Your task to perform on an android device: turn on airplane mode Image 0: 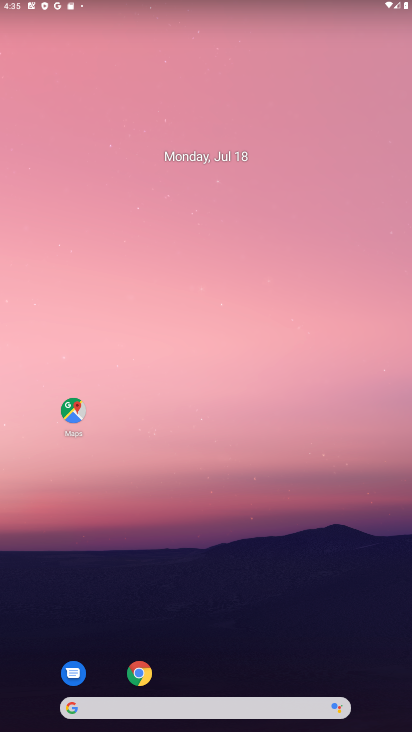
Step 0: drag from (364, 649) to (265, 172)
Your task to perform on an android device: turn on airplane mode Image 1: 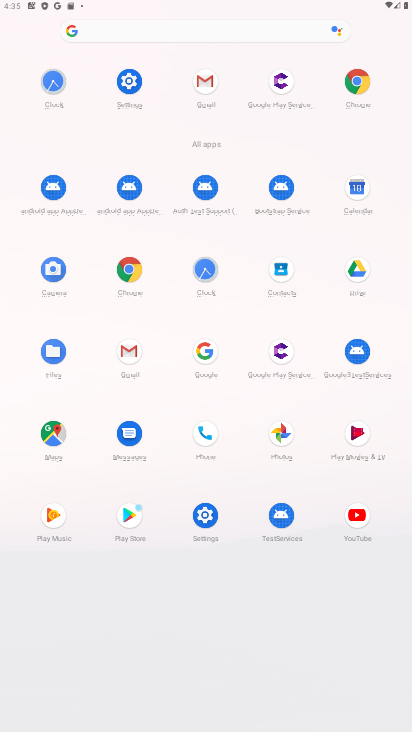
Step 1: click (130, 79)
Your task to perform on an android device: turn on airplane mode Image 2: 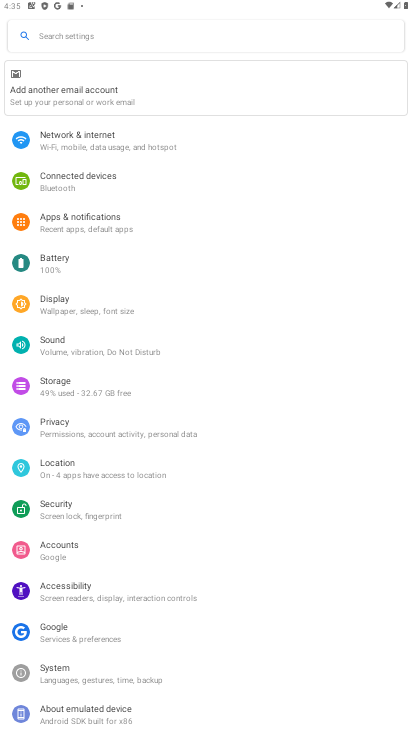
Step 2: click (149, 136)
Your task to perform on an android device: turn on airplane mode Image 3: 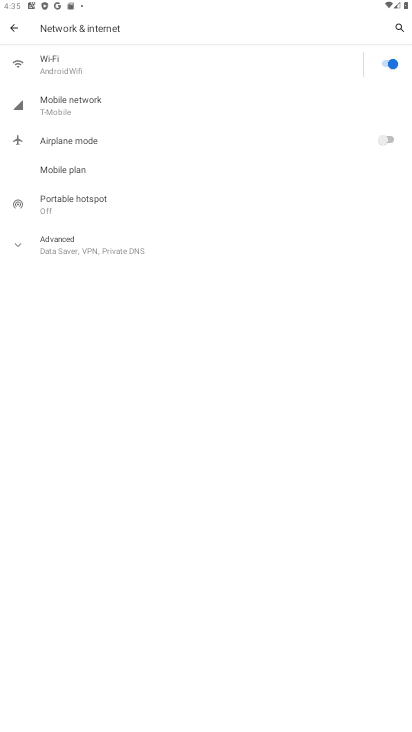
Step 3: click (387, 148)
Your task to perform on an android device: turn on airplane mode Image 4: 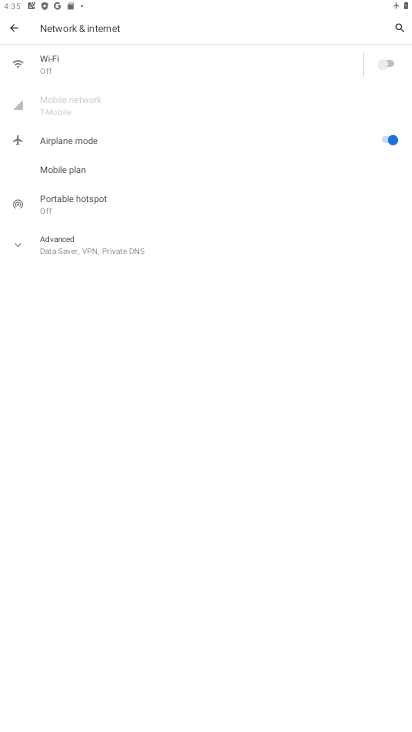
Step 4: task complete